Your task to perform on an android device: turn off smart reply in the gmail app Image 0: 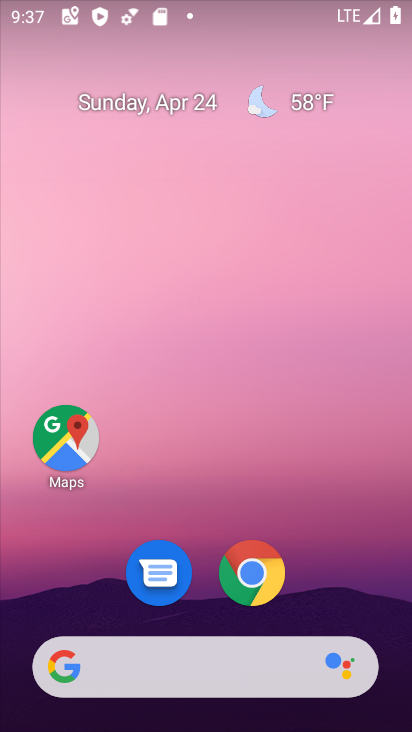
Step 0: drag from (403, 523) to (403, 48)
Your task to perform on an android device: turn off smart reply in the gmail app Image 1: 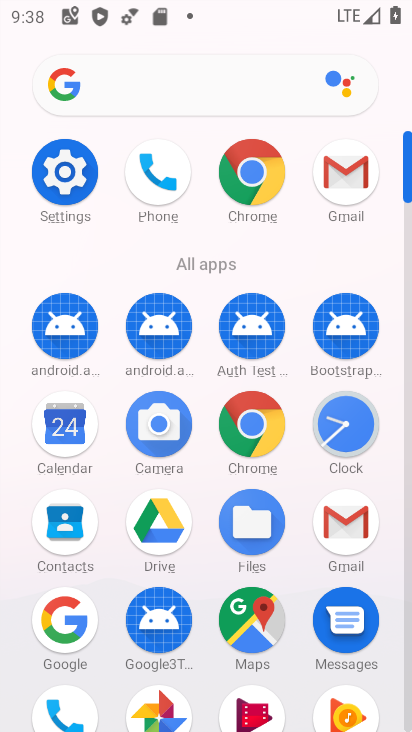
Step 1: click (341, 174)
Your task to perform on an android device: turn off smart reply in the gmail app Image 2: 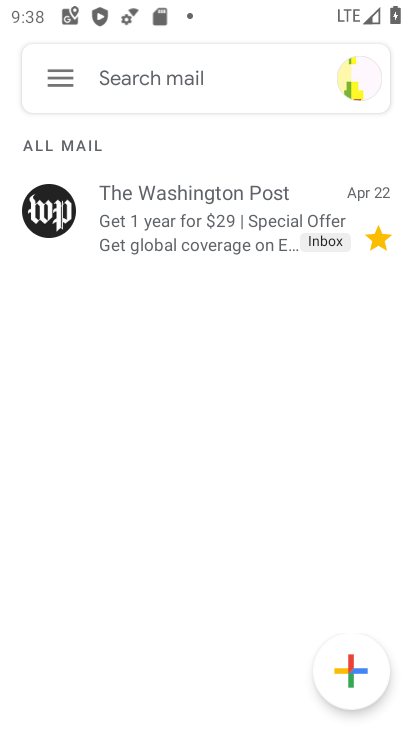
Step 2: click (64, 69)
Your task to perform on an android device: turn off smart reply in the gmail app Image 3: 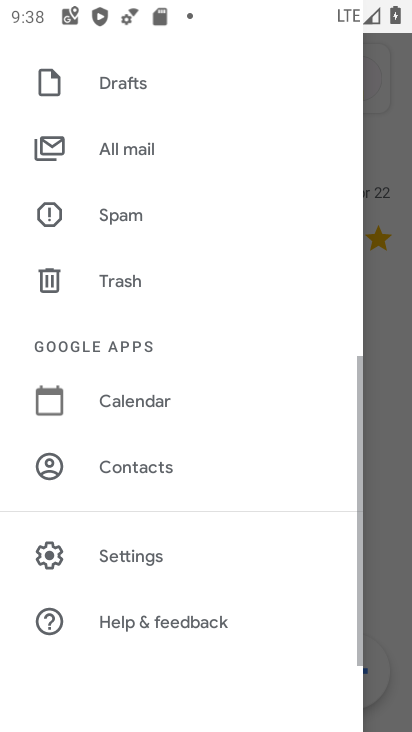
Step 3: click (104, 562)
Your task to perform on an android device: turn off smart reply in the gmail app Image 4: 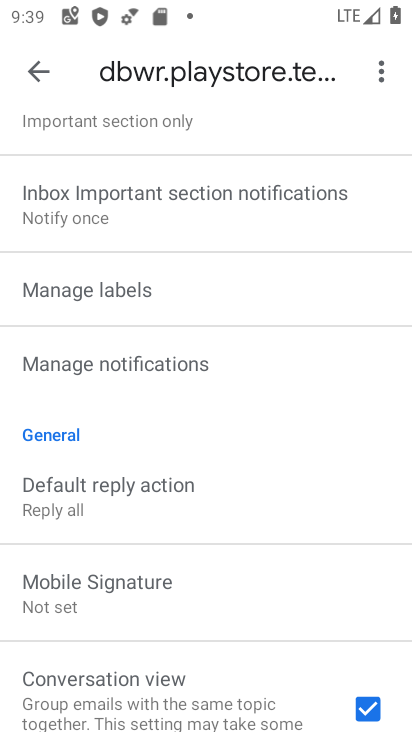
Step 4: drag from (154, 531) to (208, 308)
Your task to perform on an android device: turn off smart reply in the gmail app Image 5: 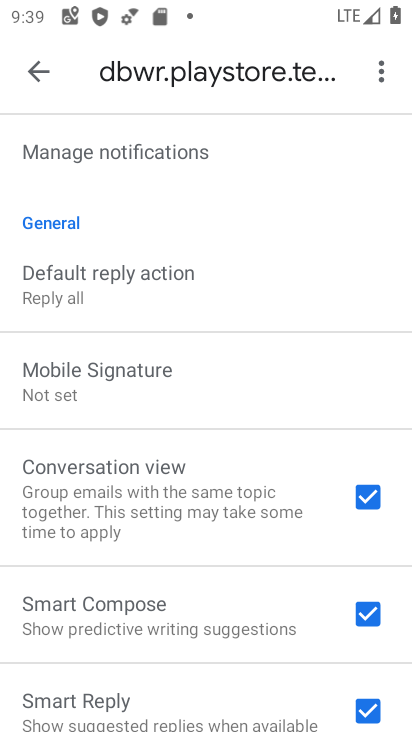
Step 5: drag from (220, 441) to (308, 161)
Your task to perform on an android device: turn off smart reply in the gmail app Image 6: 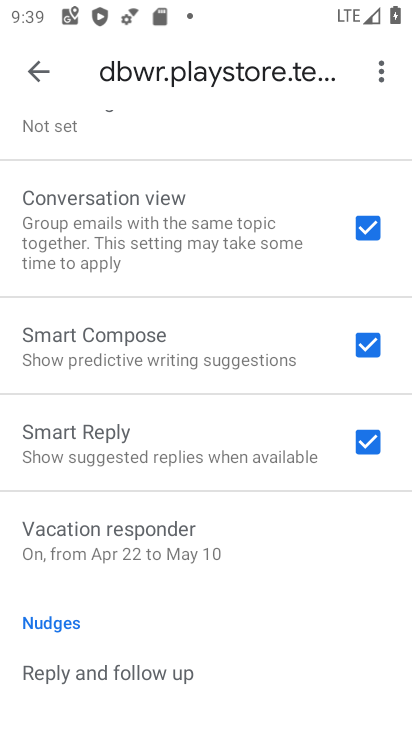
Step 6: click (360, 436)
Your task to perform on an android device: turn off smart reply in the gmail app Image 7: 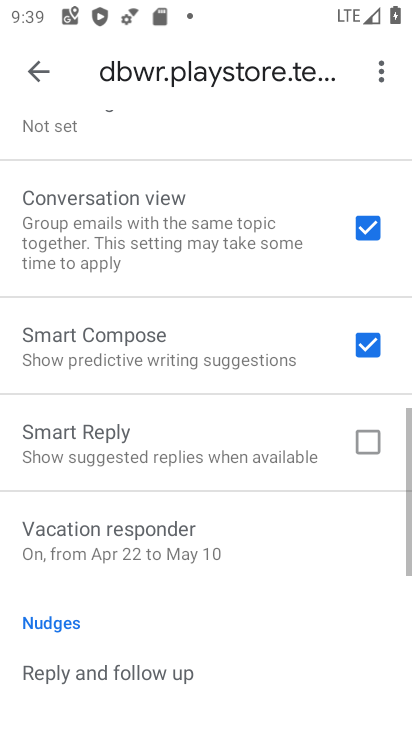
Step 7: task complete